Your task to perform on an android device: delete browsing data in the chrome app Image 0: 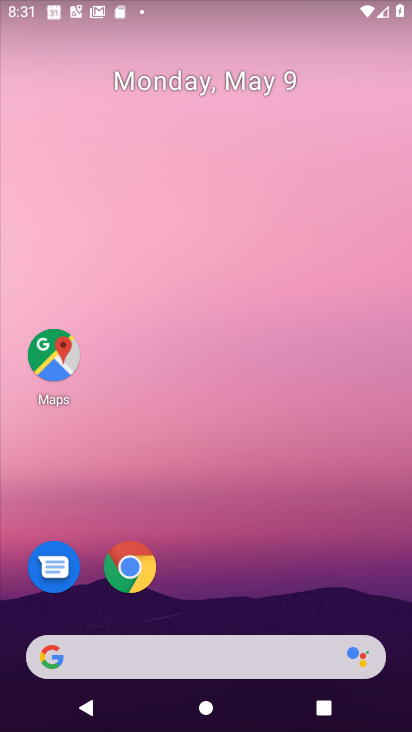
Step 0: drag from (206, 476) to (255, 227)
Your task to perform on an android device: delete browsing data in the chrome app Image 1: 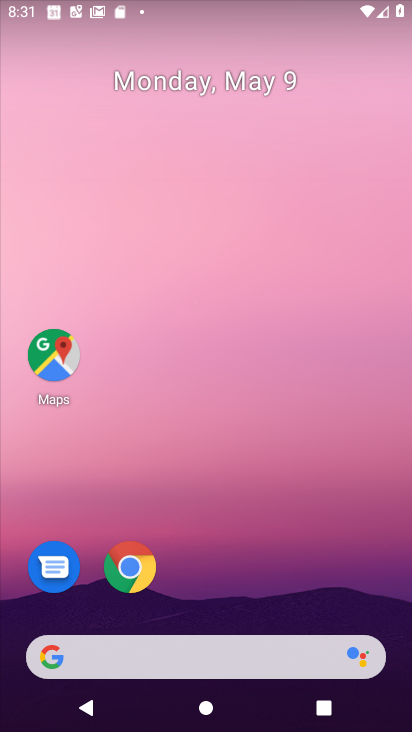
Step 1: drag from (212, 596) to (216, 98)
Your task to perform on an android device: delete browsing data in the chrome app Image 2: 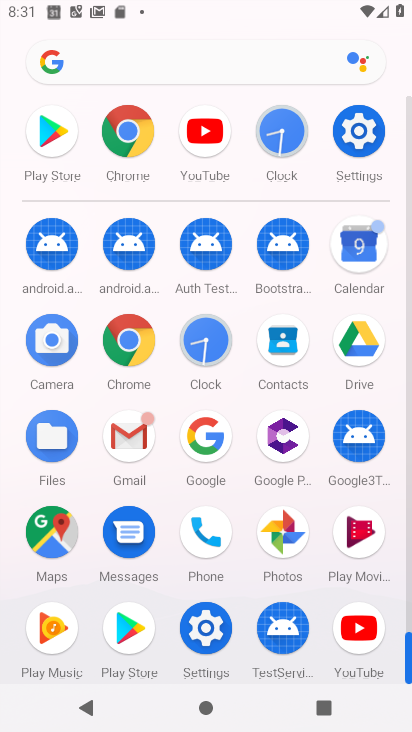
Step 2: click (128, 327)
Your task to perform on an android device: delete browsing data in the chrome app Image 3: 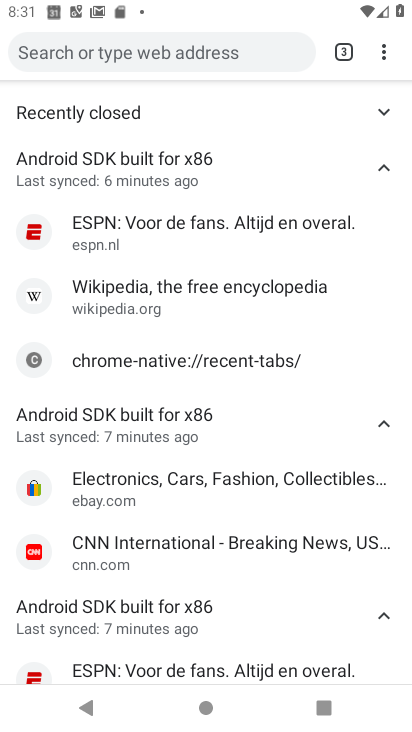
Step 3: drag from (377, 63) to (251, 287)
Your task to perform on an android device: delete browsing data in the chrome app Image 4: 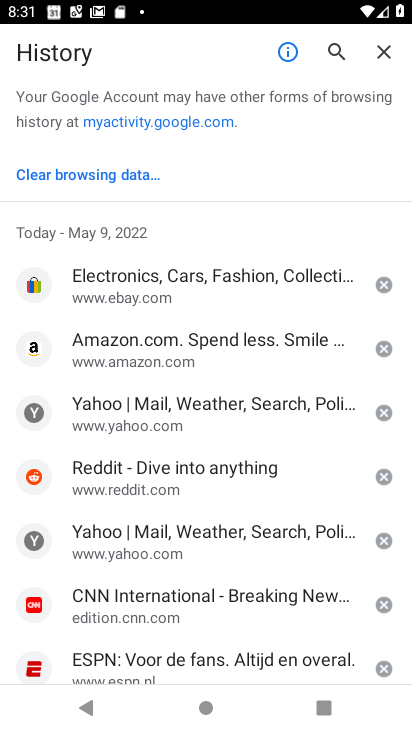
Step 4: click (83, 173)
Your task to perform on an android device: delete browsing data in the chrome app Image 5: 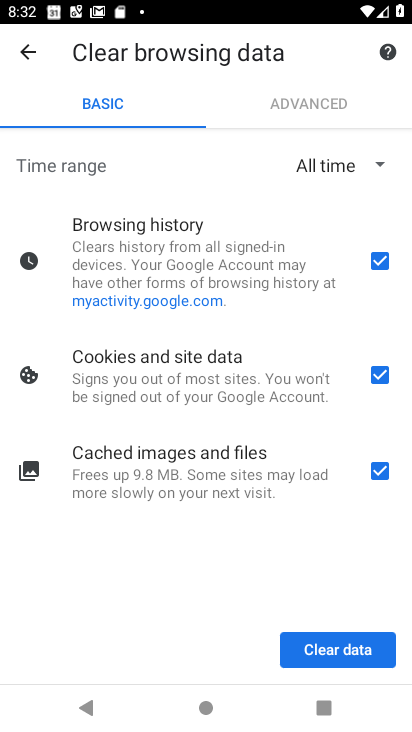
Step 5: click (311, 647)
Your task to perform on an android device: delete browsing data in the chrome app Image 6: 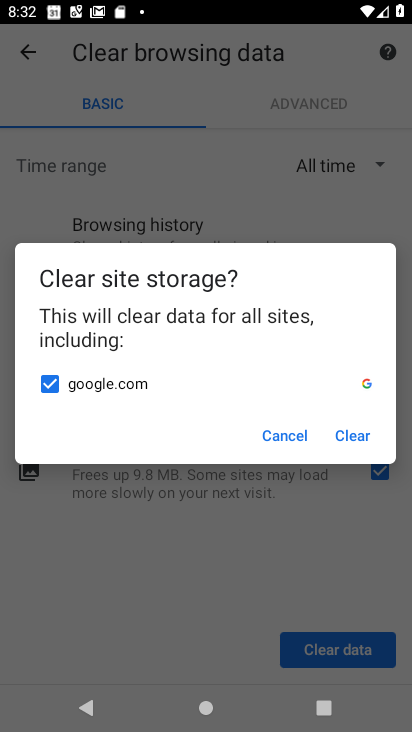
Step 6: click (356, 434)
Your task to perform on an android device: delete browsing data in the chrome app Image 7: 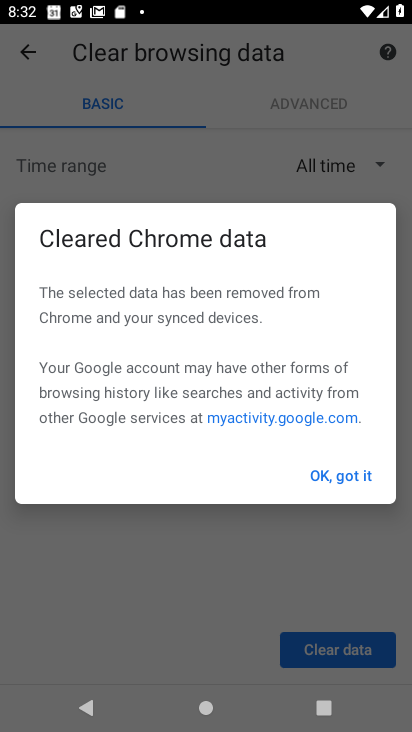
Step 7: click (344, 477)
Your task to perform on an android device: delete browsing data in the chrome app Image 8: 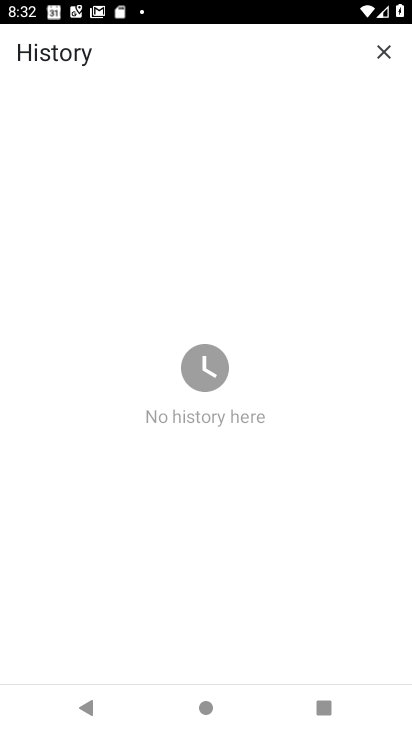
Step 8: task complete